Your task to perform on an android device: Turn off the flashlight Image 0: 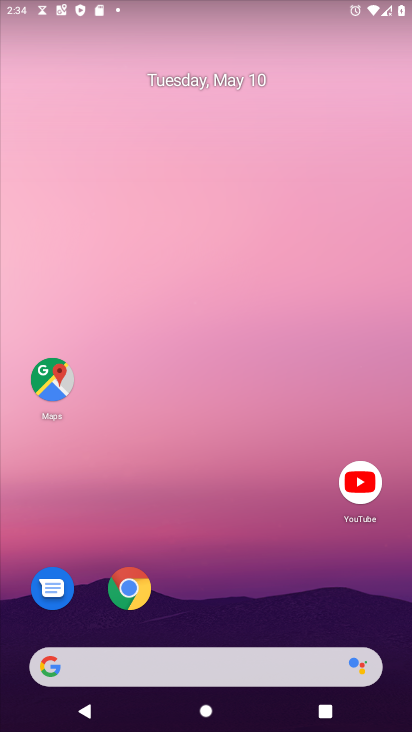
Step 0: drag from (243, 473) to (310, 228)
Your task to perform on an android device: Turn off the flashlight Image 1: 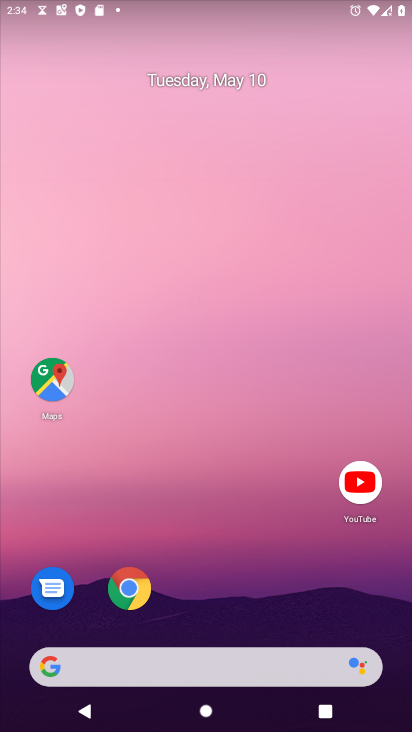
Step 1: drag from (207, 619) to (275, 201)
Your task to perform on an android device: Turn off the flashlight Image 2: 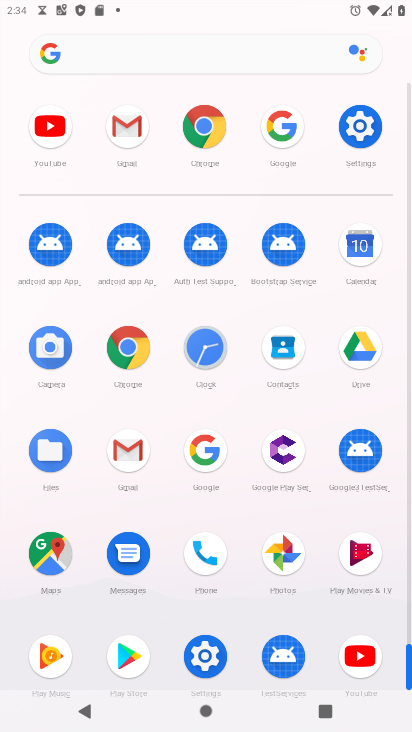
Step 2: click (348, 122)
Your task to perform on an android device: Turn off the flashlight Image 3: 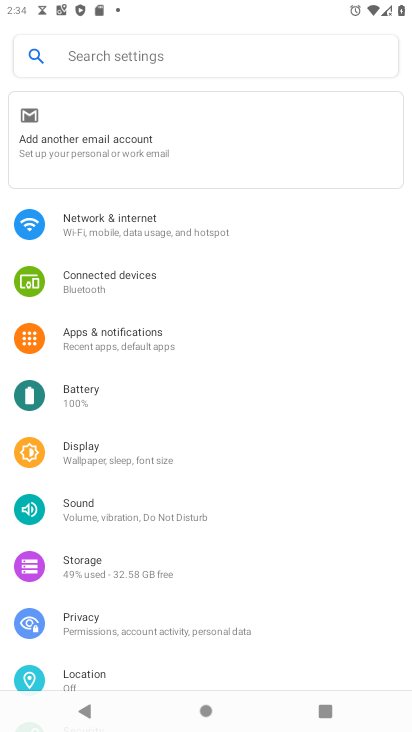
Step 3: task complete